Your task to perform on an android device: Clear the shopping cart on costco. Search for "acer predator" on costco, select the first entry, add it to the cart, then select checkout. Image 0: 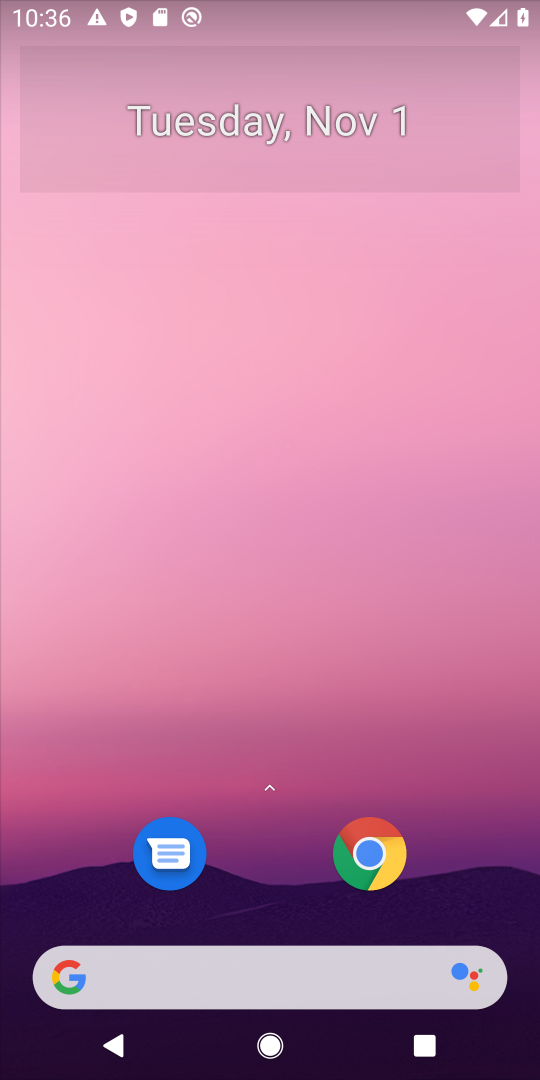
Step 0: click (263, 959)
Your task to perform on an android device: Clear the shopping cart on costco. Search for "acer predator" on costco, select the first entry, add it to the cart, then select checkout. Image 1: 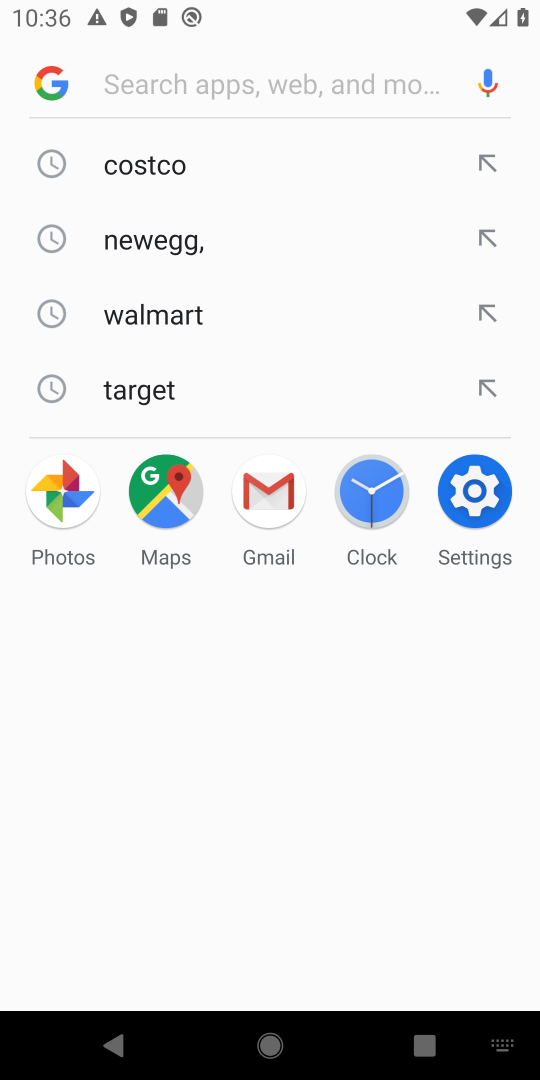
Step 1: type "acer predator"
Your task to perform on an android device: Clear the shopping cart on costco. Search for "acer predator" on costco, select the first entry, add it to the cart, then select checkout. Image 2: 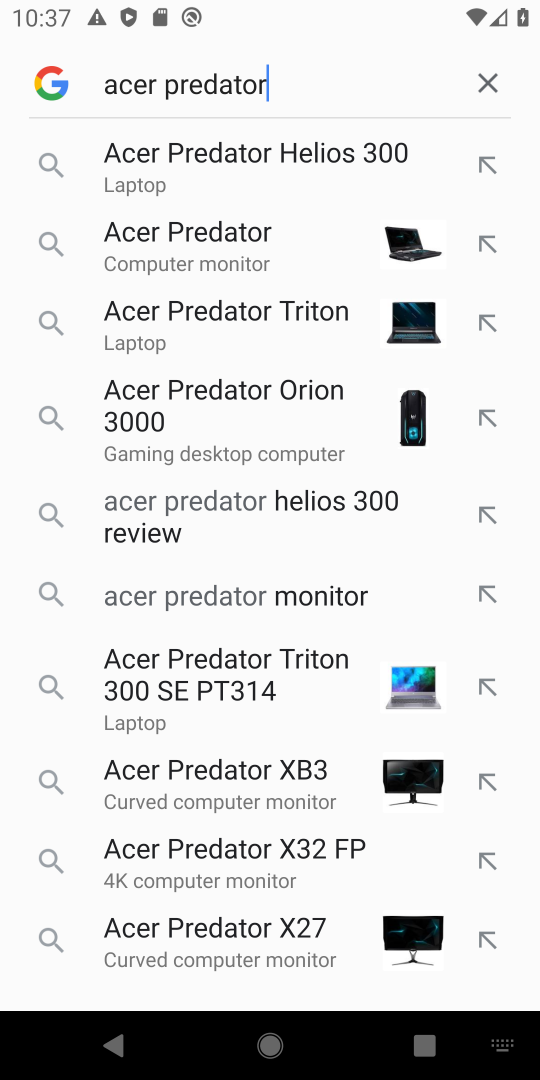
Step 2: click (225, 188)
Your task to perform on an android device: Clear the shopping cart on costco. Search for "acer predator" on costco, select the first entry, add it to the cart, then select checkout. Image 3: 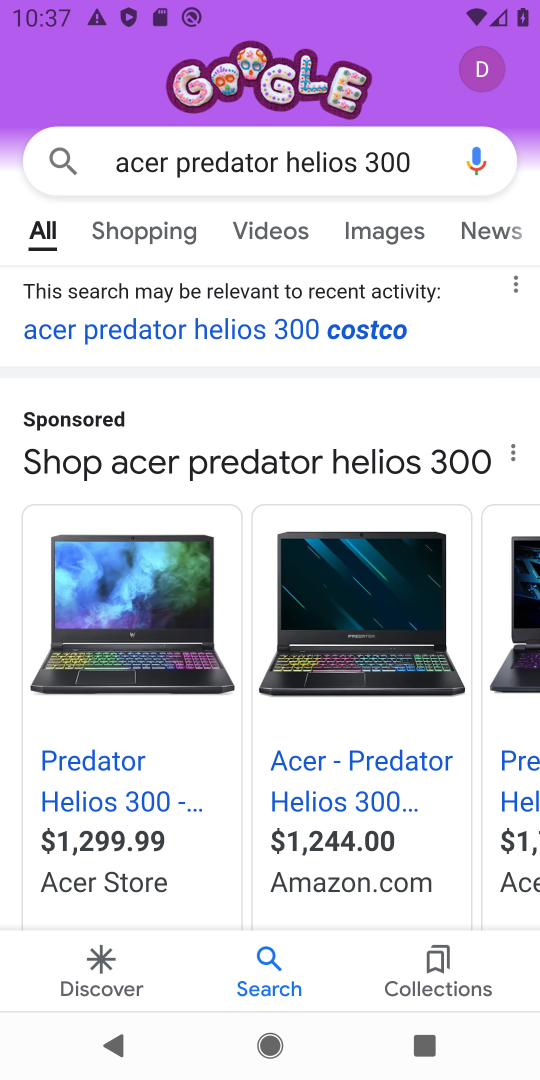
Step 3: click (88, 750)
Your task to perform on an android device: Clear the shopping cart on costco. Search for "acer predator" on costco, select the first entry, add it to the cart, then select checkout. Image 4: 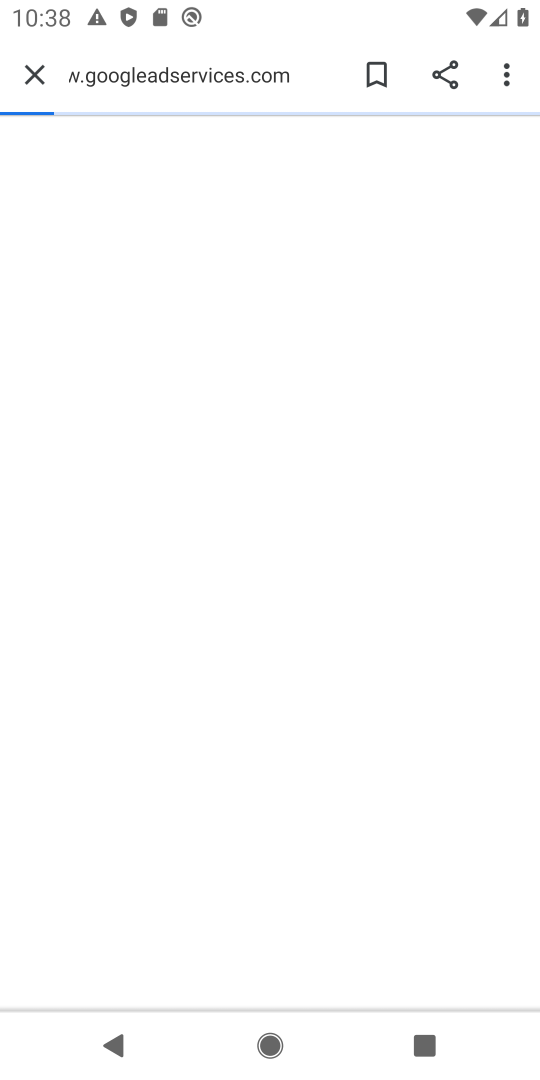
Step 4: task complete